Your task to perform on an android device: turn on data saver in the chrome app Image 0: 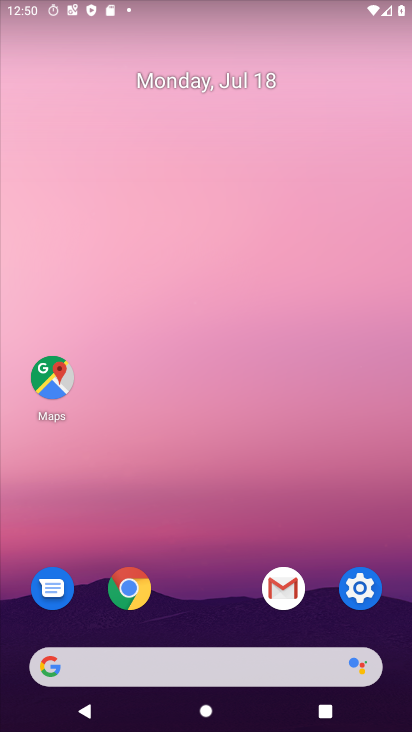
Step 0: click (136, 589)
Your task to perform on an android device: turn on data saver in the chrome app Image 1: 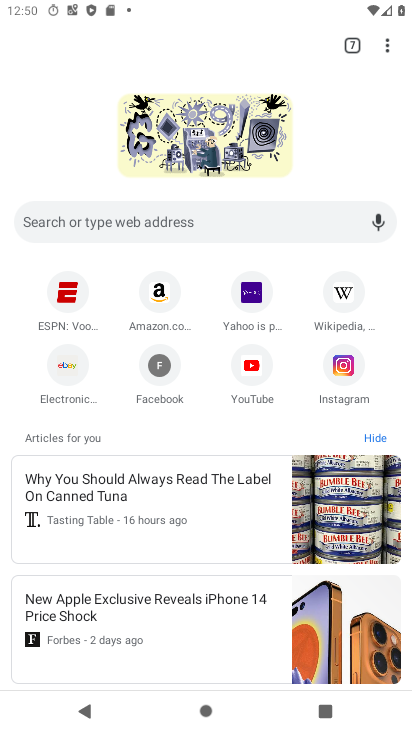
Step 1: click (384, 45)
Your task to perform on an android device: turn on data saver in the chrome app Image 2: 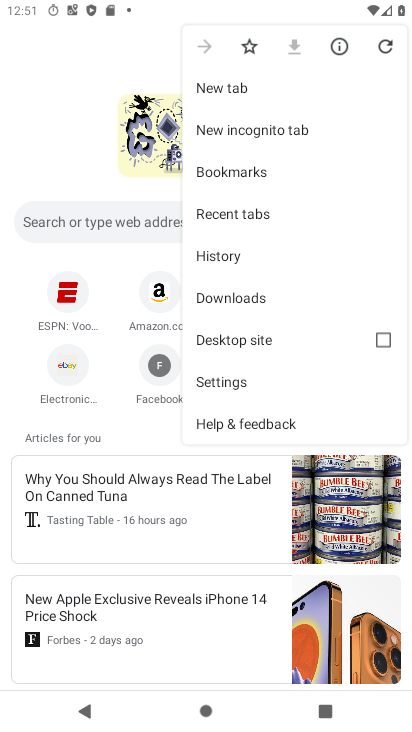
Step 2: click (231, 378)
Your task to perform on an android device: turn on data saver in the chrome app Image 3: 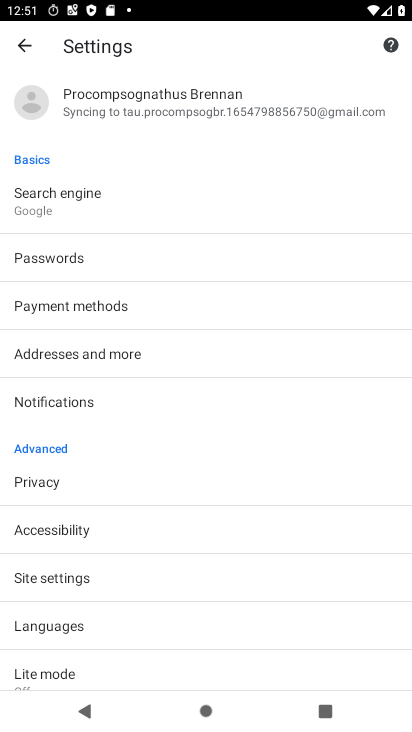
Step 3: drag from (115, 612) to (136, 502)
Your task to perform on an android device: turn on data saver in the chrome app Image 4: 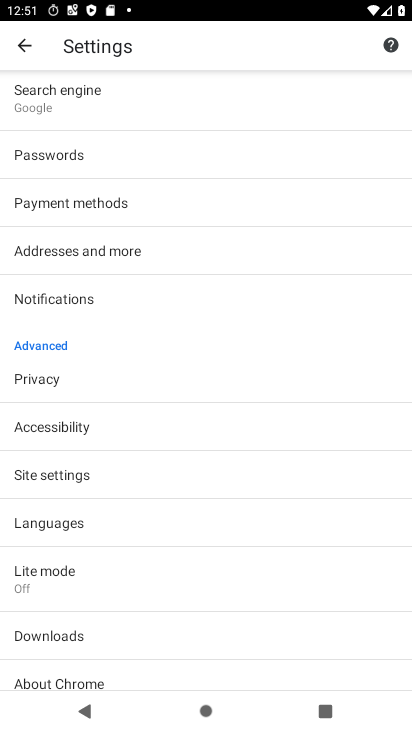
Step 4: click (37, 588)
Your task to perform on an android device: turn on data saver in the chrome app Image 5: 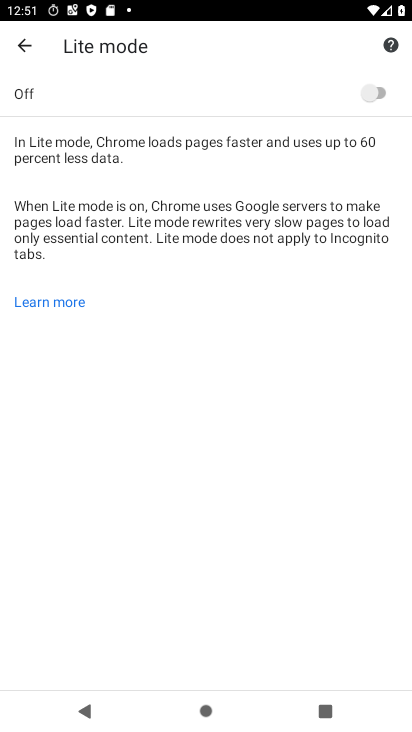
Step 5: click (367, 94)
Your task to perform on an android device: turn on data saver in the chrome app Image 6: 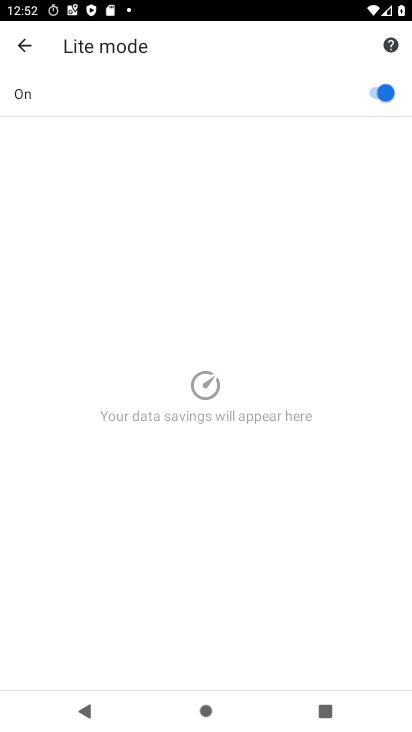
Step 6: task complete